Your task to perform on an android device: open a bookmark in the chrome app Image 0: 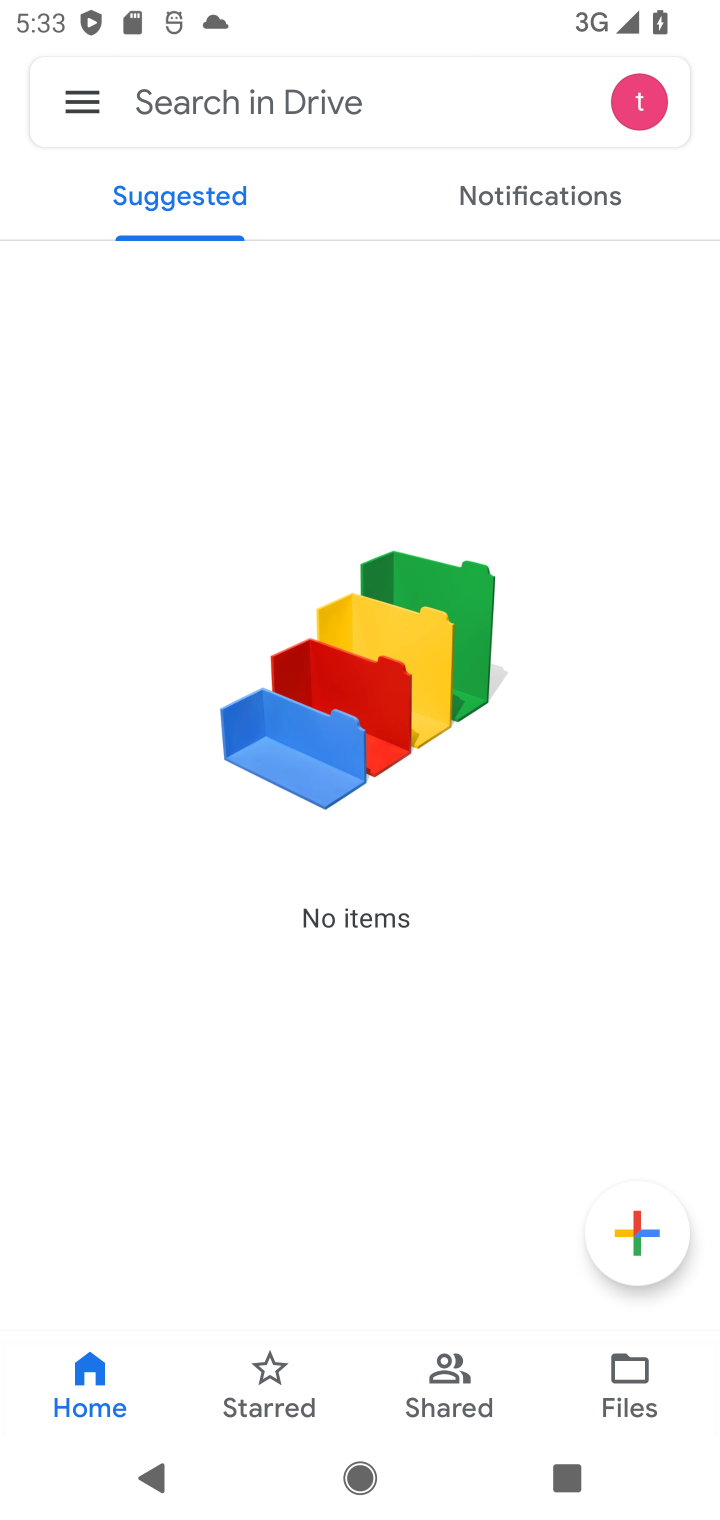
Step 0: press home button
Your task to perform on an android device: open a bookmark in the chrome app Image 1: 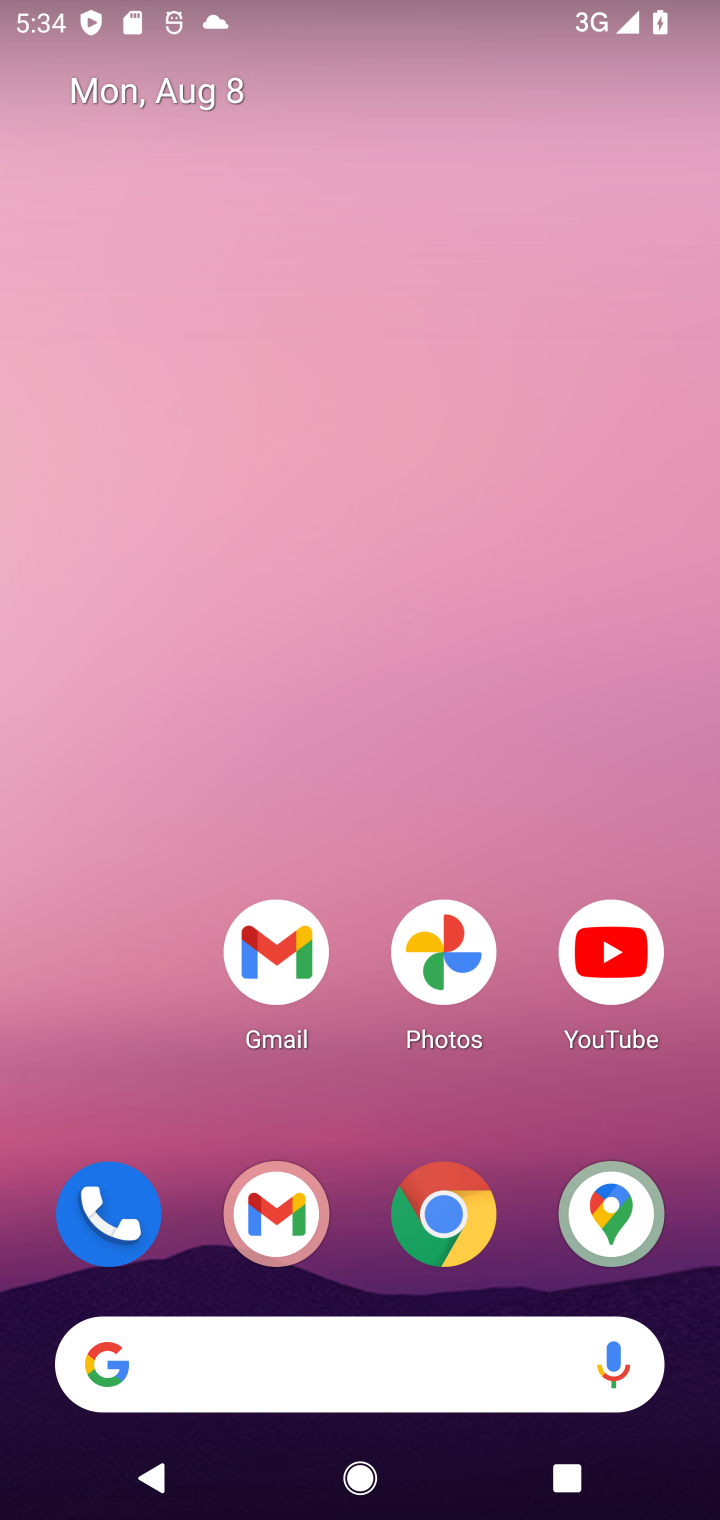
Step 1: click (447, 1216)
Your task to perform on an android device: open a bookmark in the chrome app Image 2: 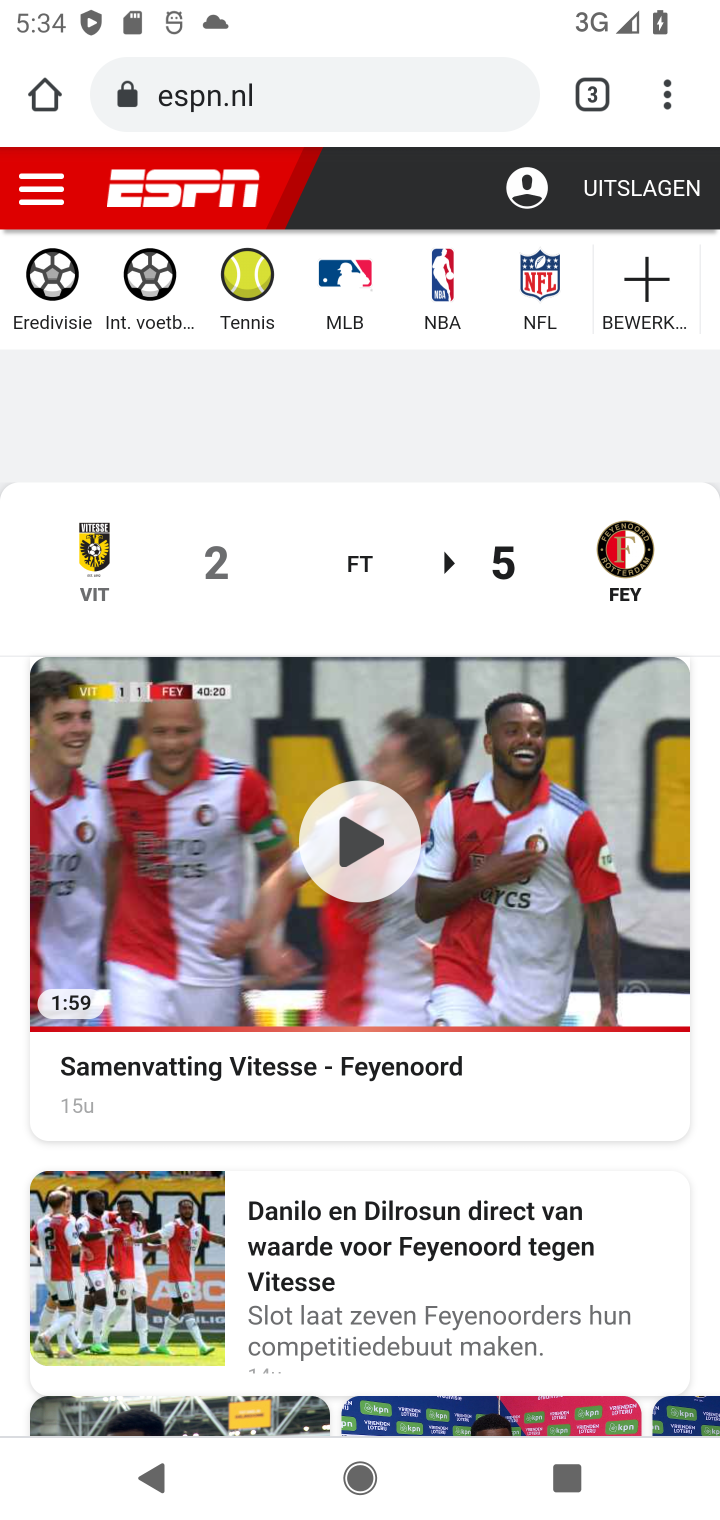
Step 2: drag from (671, 104) to (372, 686)
Your task to perform on an android device: open a bookmark in the chrome app Image 3: 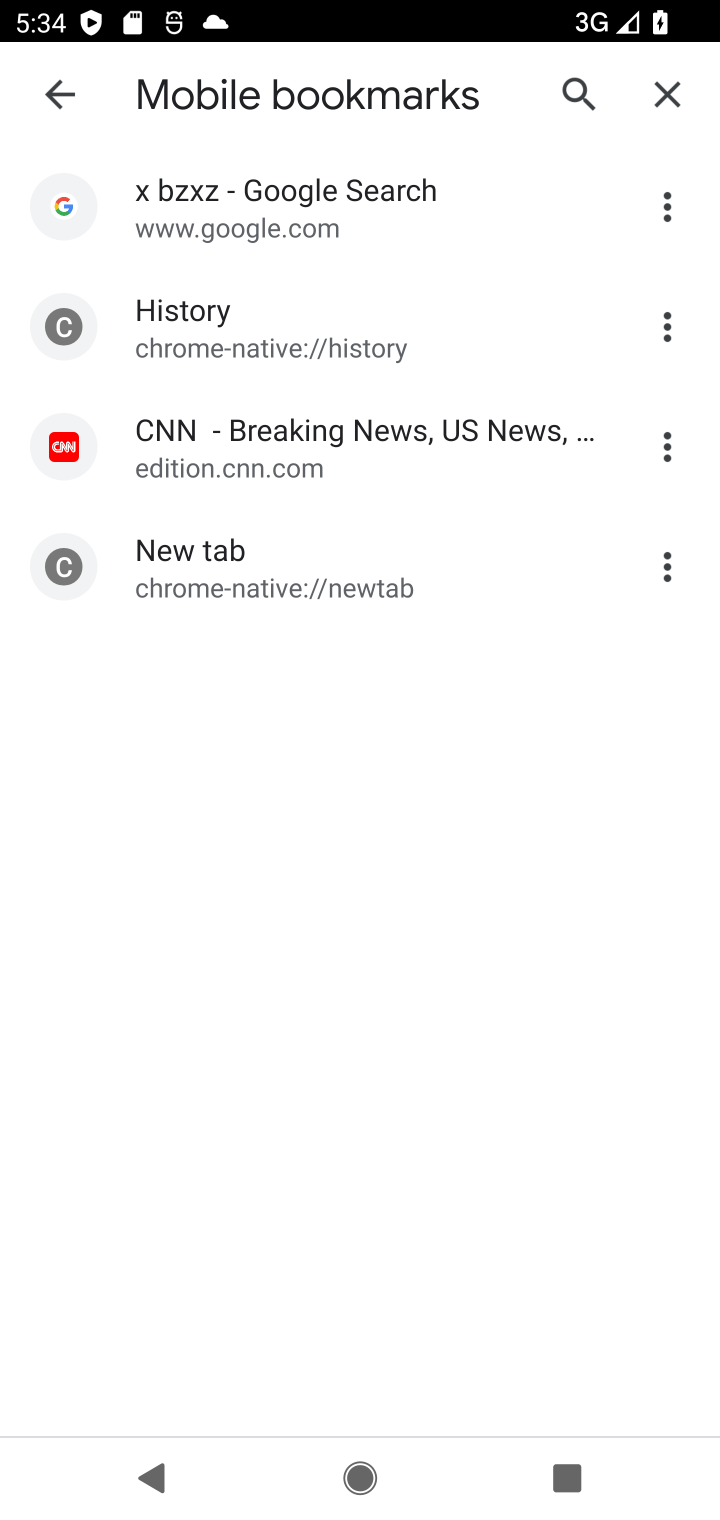
Step 3: click (260, 439)
Your task to perform on an android device: open a bookmark in the chrome app Image 4: 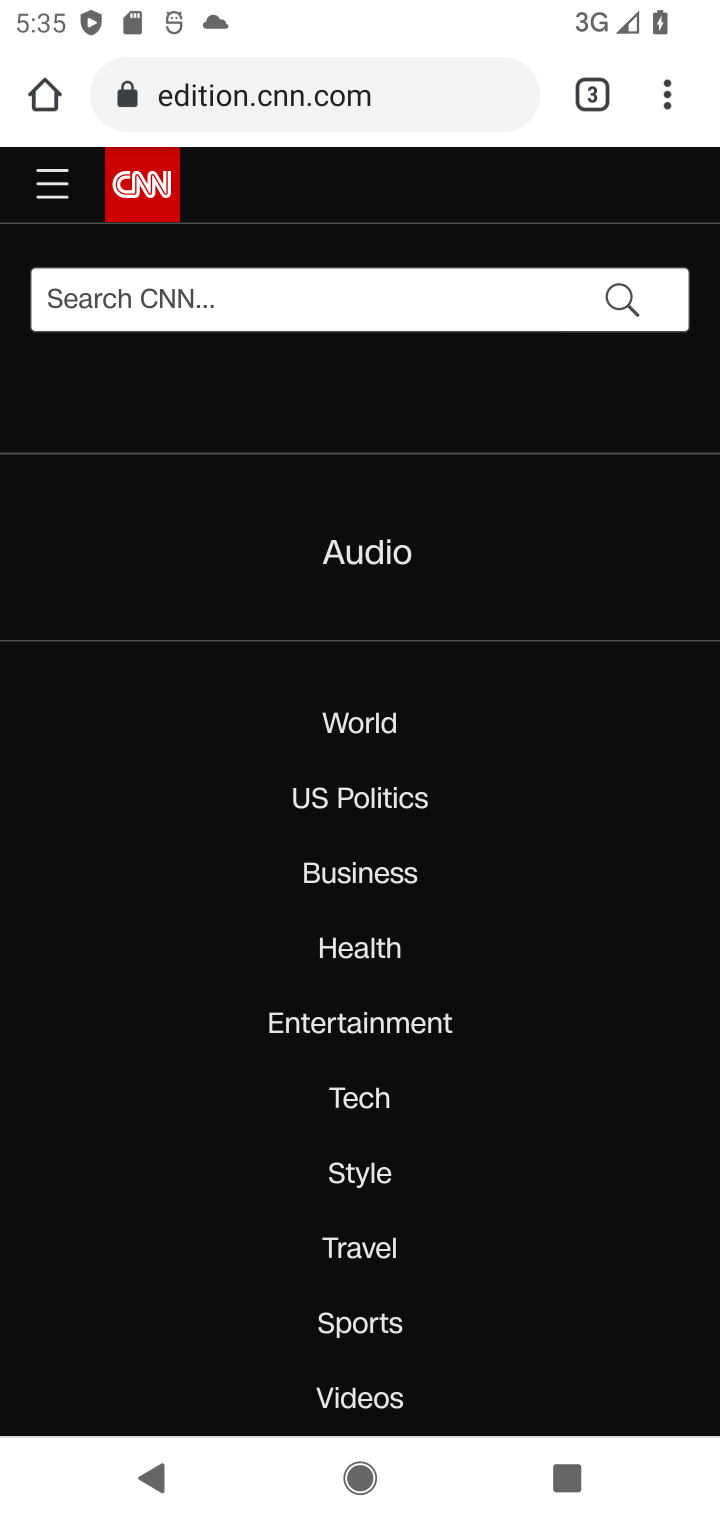
Step 4: task complete